Your task to perform on an android device: Open my contact list Image 0: 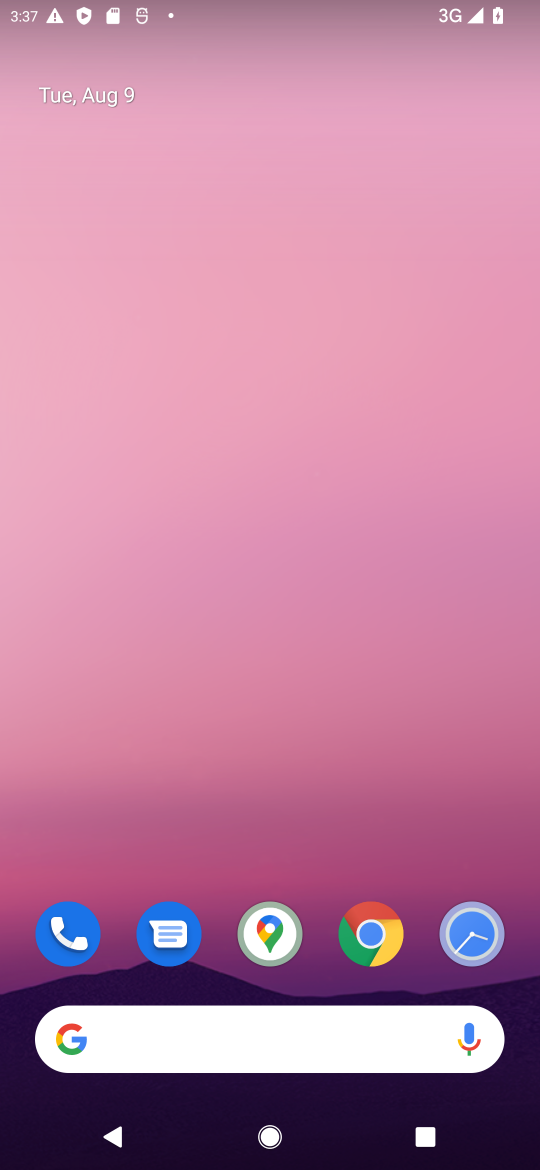
Step 0: drag from (328, 990) to (399, 33)
Your task to perform on an android device: Open my contact list Image 1: 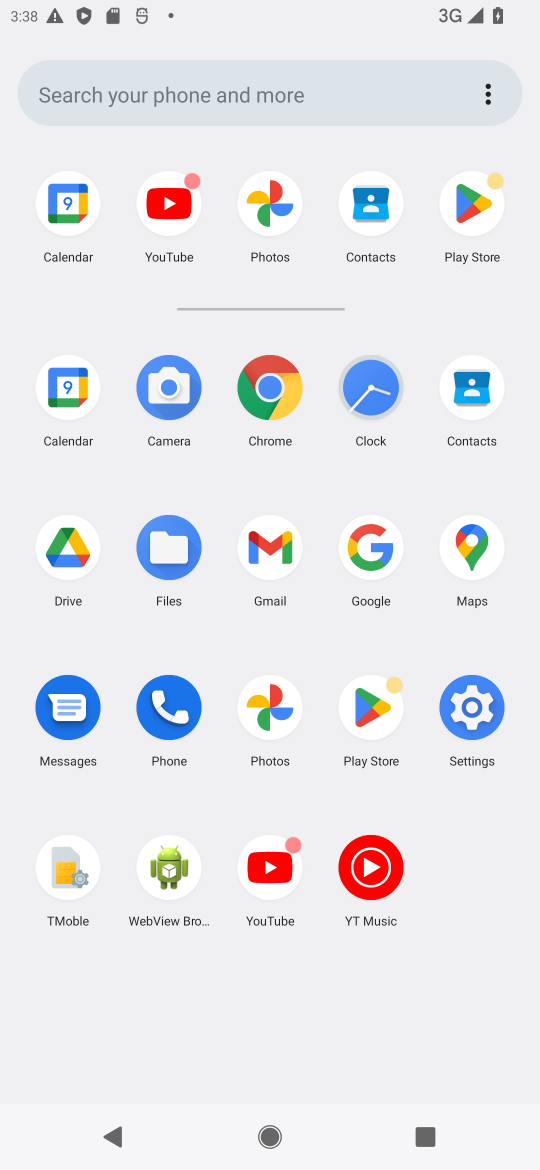
Step 1: click (381, 246)
Your task to perform on an android device: Open my contact list Image 2: 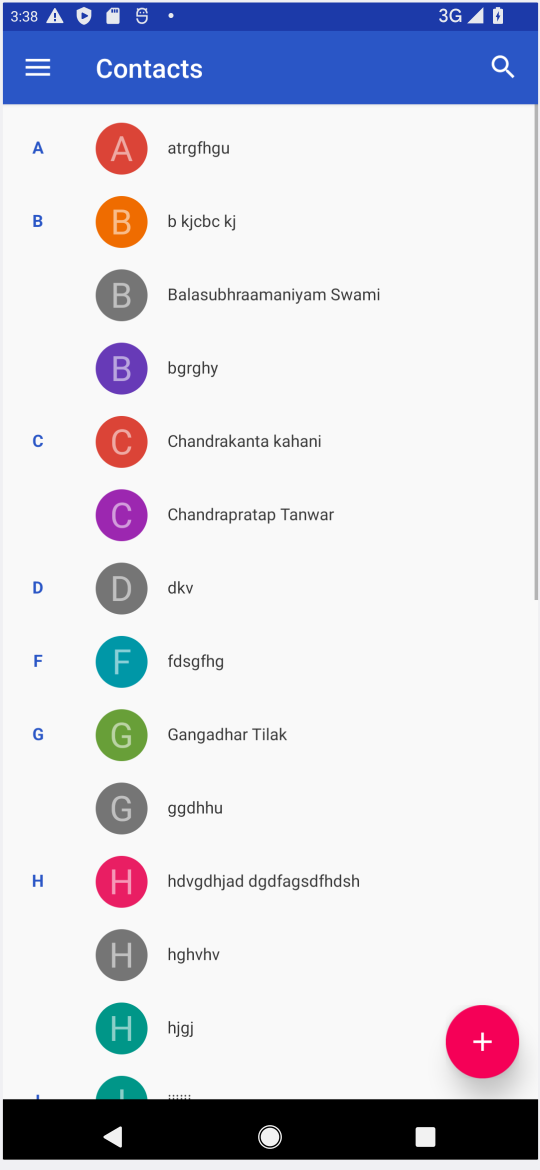
Step 2: task complete